Your task to perform on an android device: View the shopping cart on ebay.com. Search for "razer blade" on ebay.com, select the first entry, and add it to the cart. Image 0: 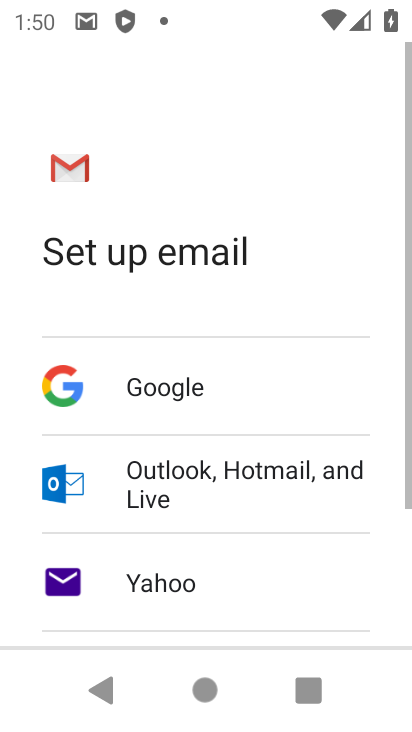
Step 0: press home button
Your task to perform on an android device: View the shopping cart on ebay.com. Search for "razer blade" on ebay.com, select the first entry, and add it to the cart. Image 1: 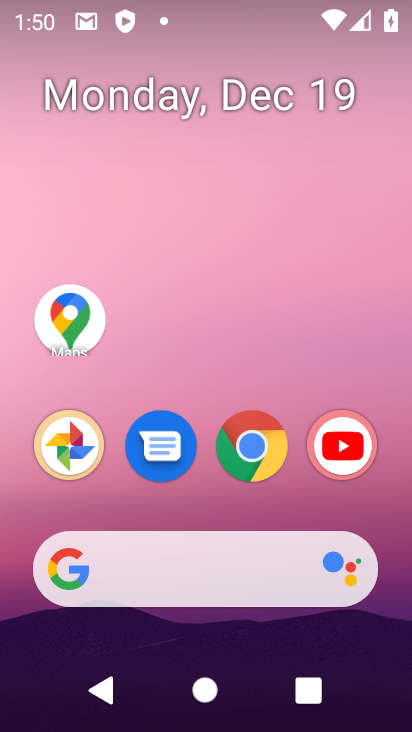
Step 1: click (232, 446)
Your task to perform on an android device: View the shopping cart on ebay.com. Search for "razer blade" on ebay.com, select the first entry, and add it to the cart. Image 2: 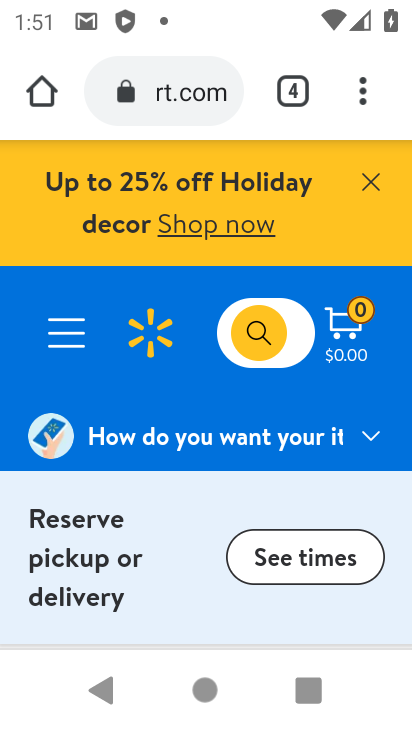
Step 2: task complete